Your task to perform on an android device: open app "Viber Messenger" Image 0: 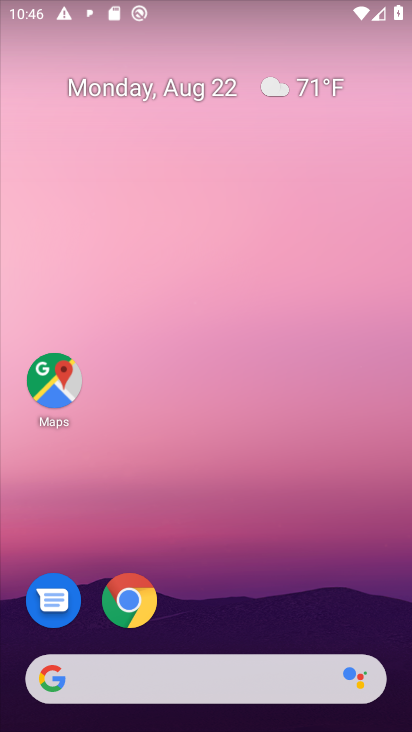
Step 0: drag from (222, 587) to (207, 83)
Your task to perform on an android device: open app "Viber Messenger" Image 1: 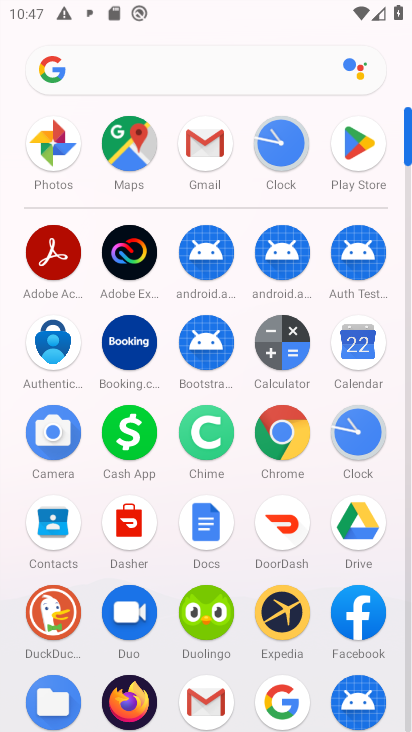
Step 1: click (339, 137)
Your task to perform on an android device: open app "Viber Messenger" Image 2: 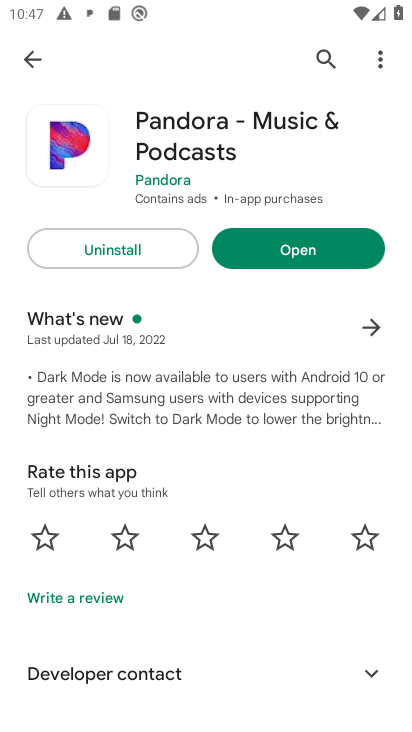
Step 2: click (318, 54)
Your task to perform on an android device: open app "Viber Messenger" Image 3: 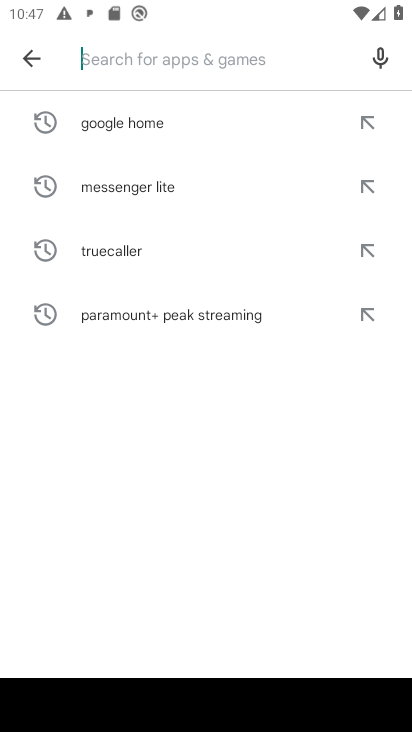
Step 3: type "Viber Messenger"
Your task to perform on an android device: open app "Viber Messenger" Image 4: 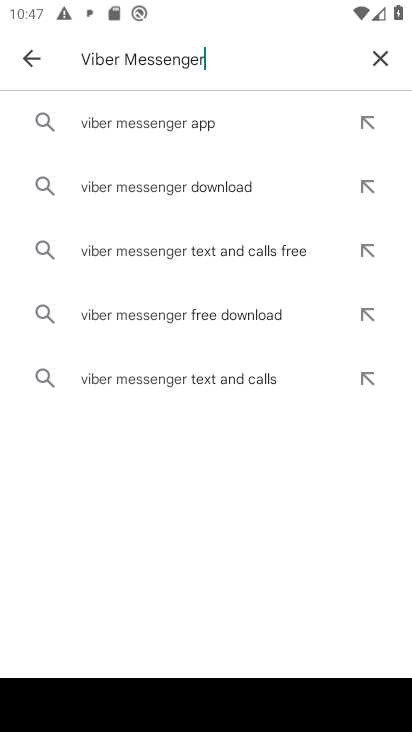
Step 4: type ""
Your task to perform on an android device: open app "Viber Messenger" Image 5: 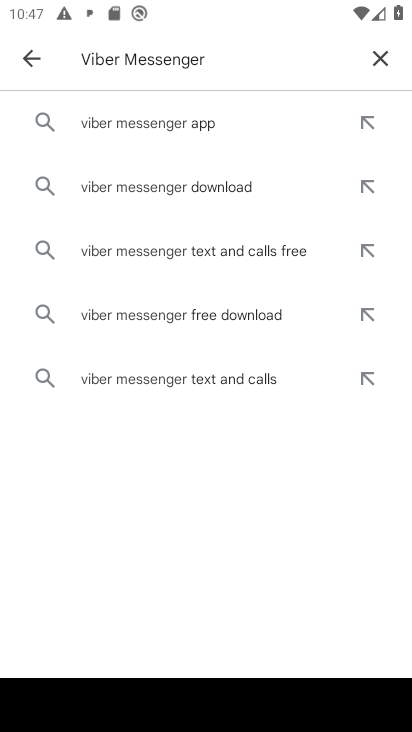
Step 5: click (97, 121)
Your task to perform on an android device: open app "Viber Messenger" Image 6: 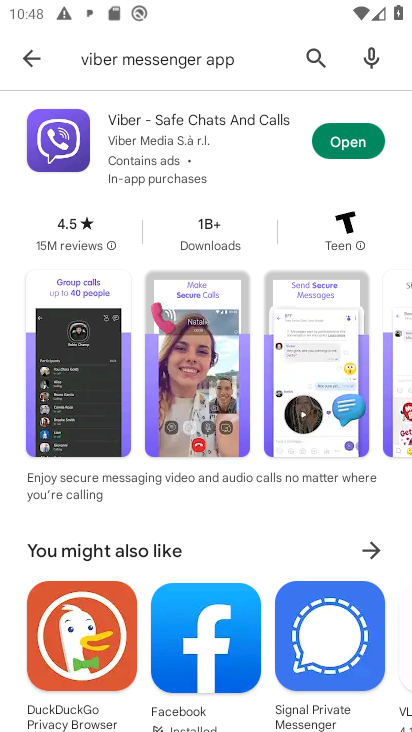
Step 6: click (355, 139)
Your task to perform on an android device: open app "Viber Messenger" Image 7: 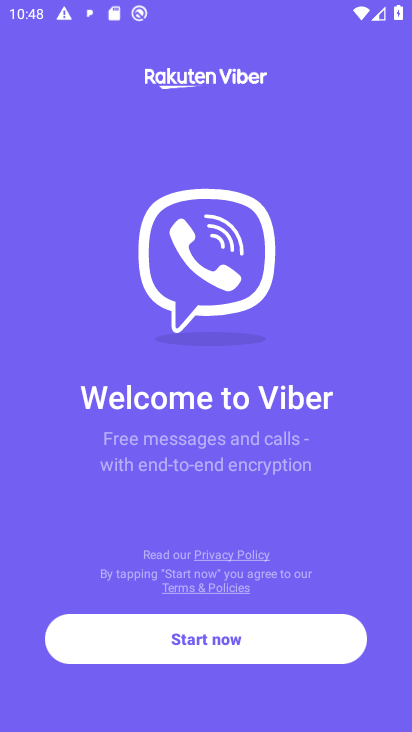
Step 7: task complete